Your task to perform on an android device: change notifications settings Image 0: 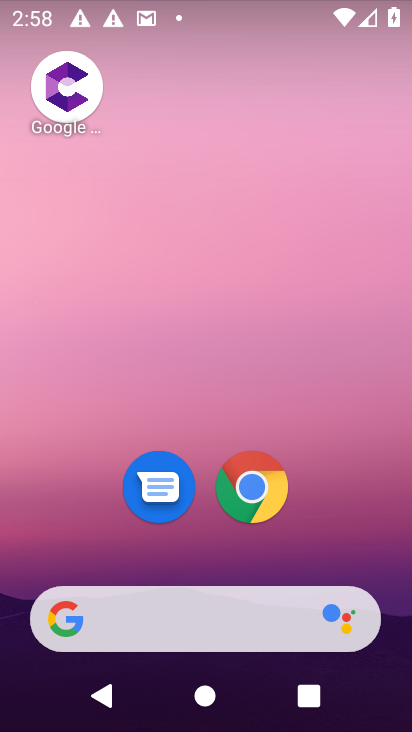
Step 0: drag from (121, 532) to (123, 55)
Your task to perform on an android device: change notifications settings Image 1: 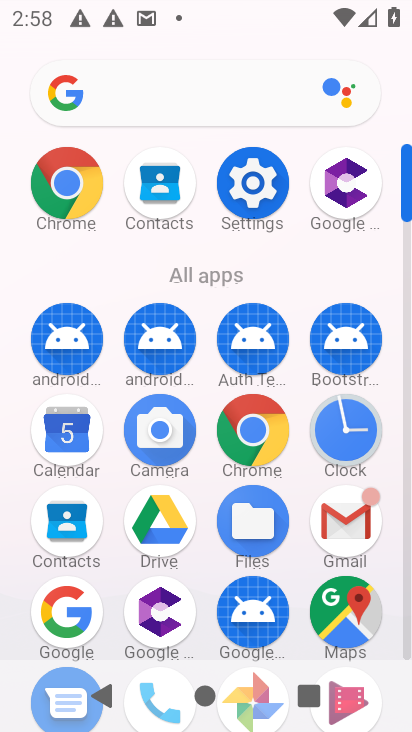
Step 1: click (244, 188)
Your task to perform on an android device: change notifications settings Image 2: 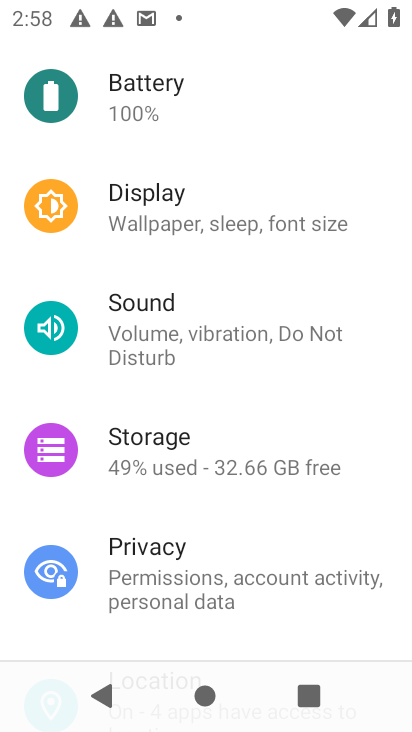
Step 2: drag from (182, 143) to (187, 637)
Your task to perform on an android device: change notifications settings Image 3: 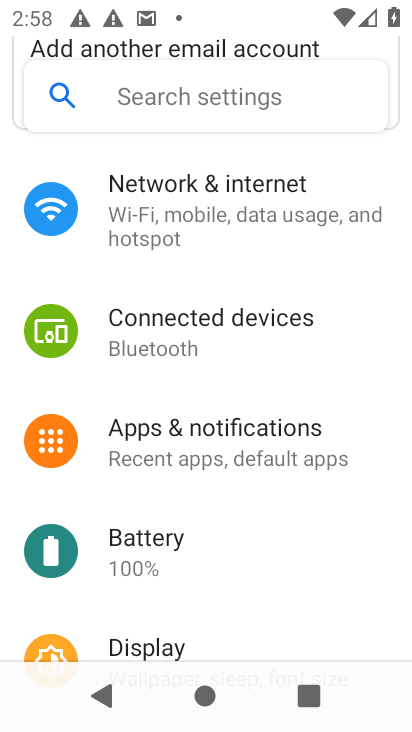
Step 3: click (191, 441)
Your task to perform on an android device: change notifications settings Image 4: 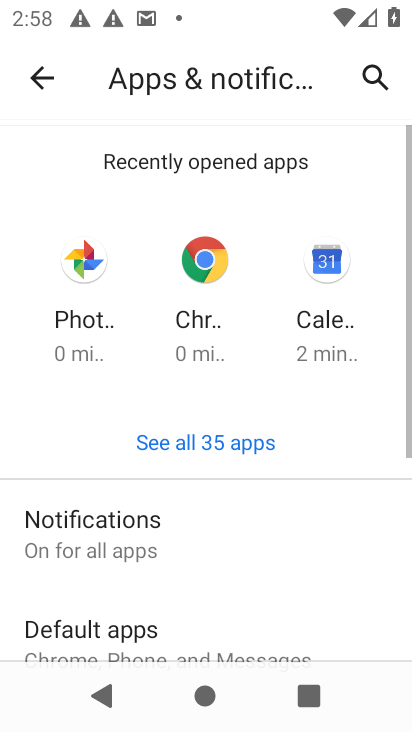
Step 4: click (128, 512)
Your task to perform on an android device: change notifications settings Image 5: 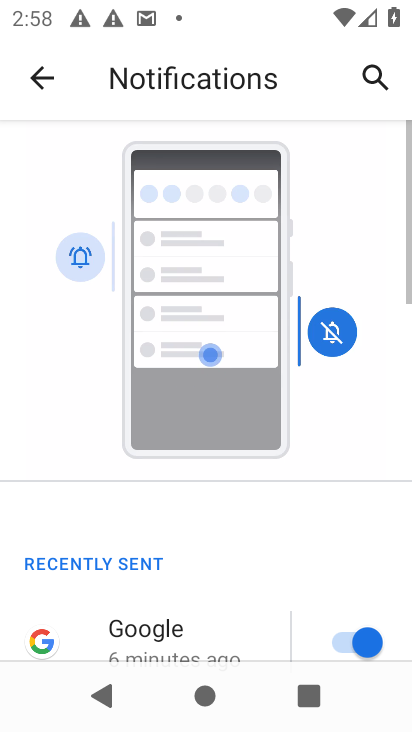
Step 5: drag from (169, 596) to (242, 98)
Your task to perform on an android device: change notifications settings Image 6: 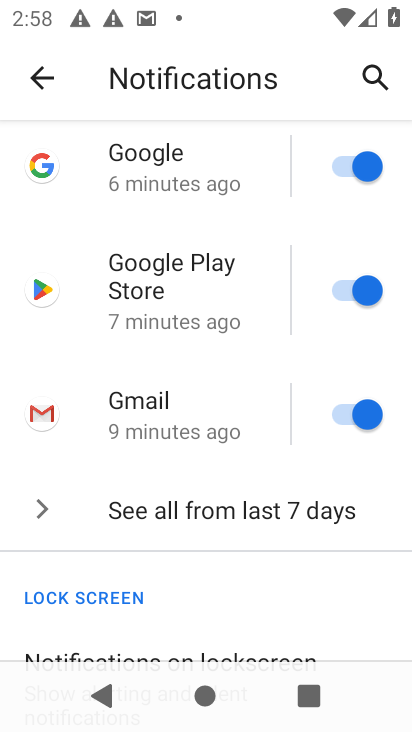
Step 6: drag from (195, 592) to (218, 237)
Your task to perform on an android device: change notifications settings Image 7: 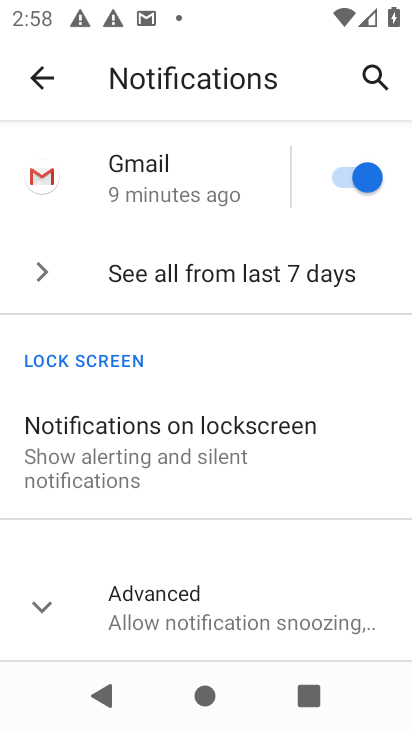
Step 7: drag from (172, 266) to (195, 513)
Your task to perform on an android device: change notifications settings Image 8: 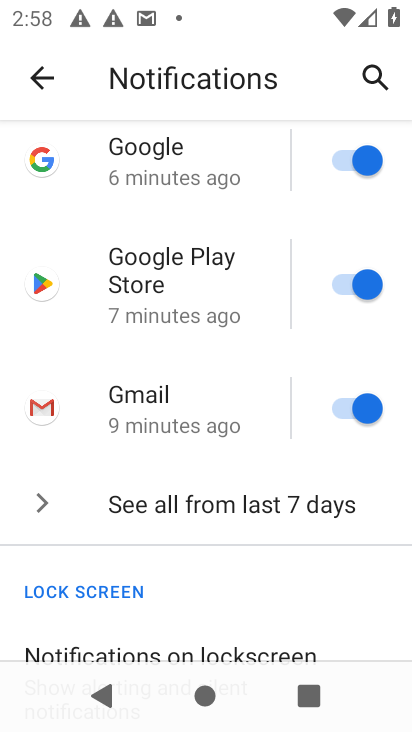
Step 8: click (193, 503)
Your task to perform on an android device: change notifications settings Image 9: 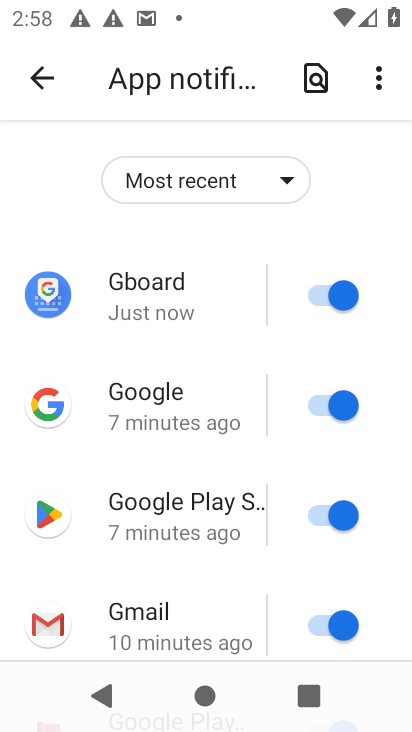
Step 9: click (317, 284)
Your task to perform on an android device: change notifications settings Image 10: 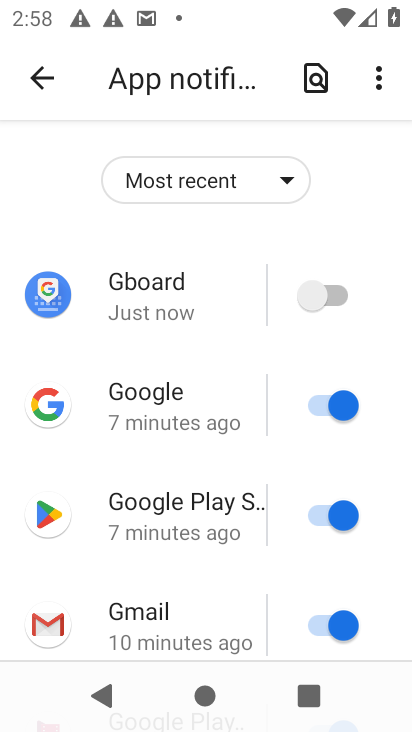
Step 10: click (337, 405)
Your task to perform on an android device: change notifications settings Image 11: 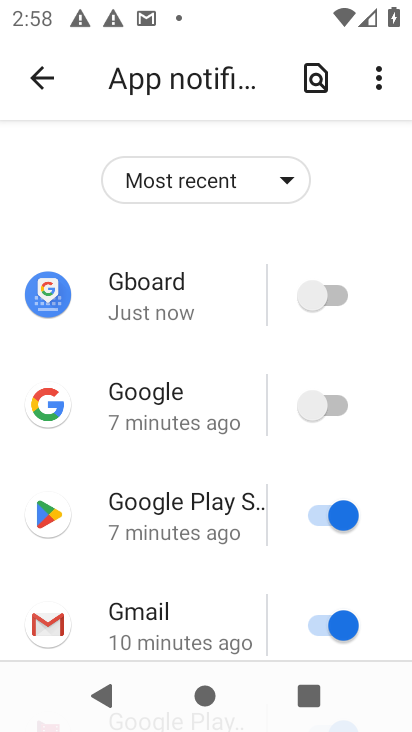
Step 11: click (326, 509)
Your task to perform on an android device: change notifications settings Image 12: 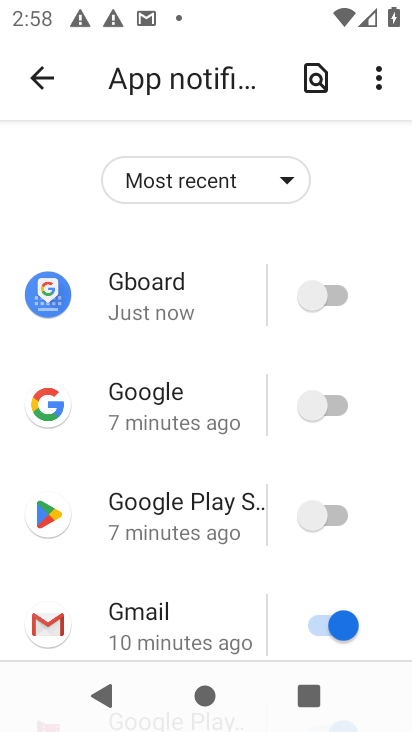
Step 12: drag from (184, 601) to (202, 247)
Your task to perform on an android device: change notifications settings Image 13: 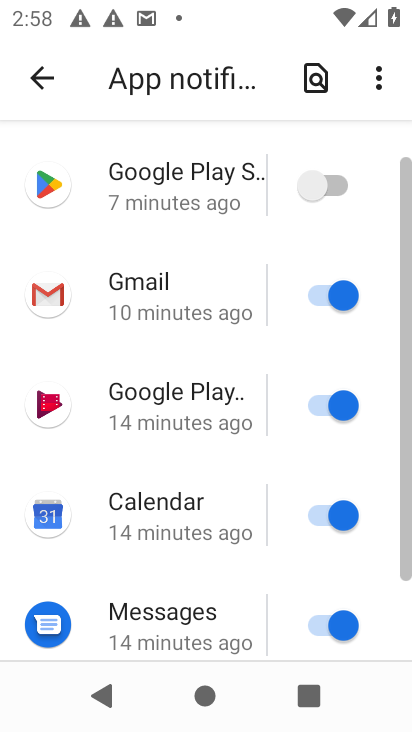
Step 13: click (319, 274)
Your task to perform on an android device: change notifications settings Image 14: 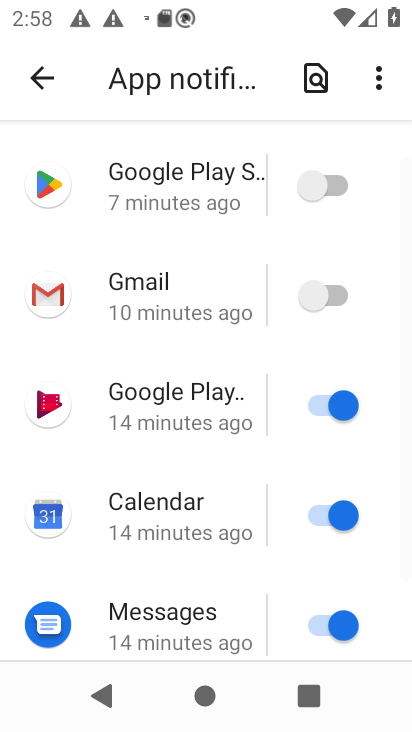
Step 14: click (330, 400)
Your task to perform on an android device: change notifications settings Image 15: 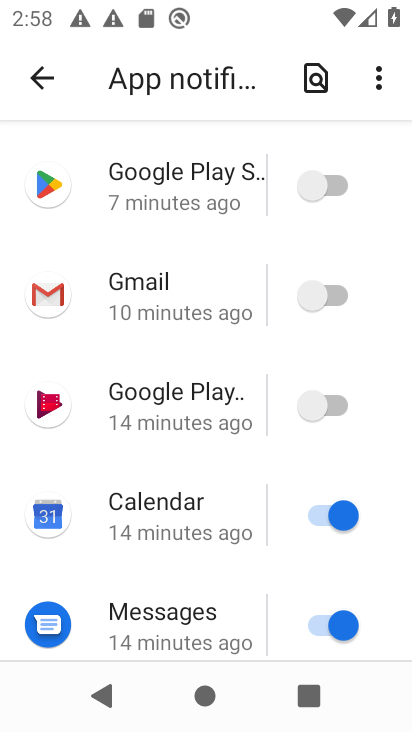
Step 15: click (325, 521)
Your task to perform on an android device: change notifications settings Image 16: 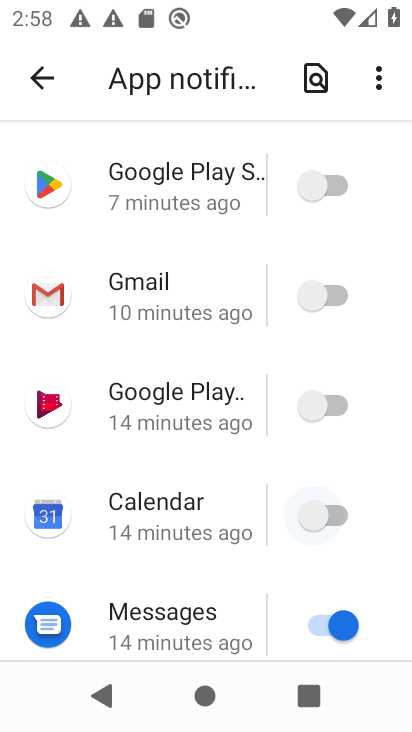
Step 16: click (327, 613)
Your task to perform on an android device: change notifications settings Image 17: 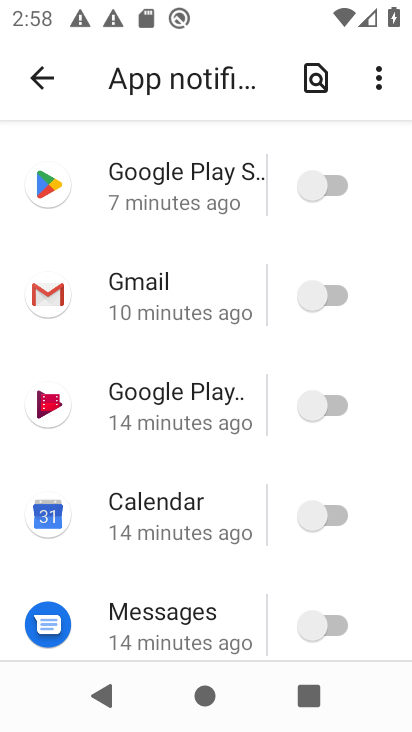
Step 17: drag from (248, 578) to (271, 112)
Your task to perform on an android device: change notifications settings Image 18: 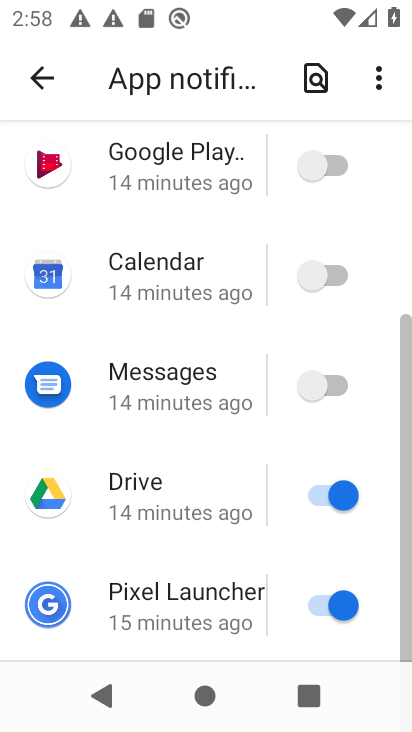
Step 18: click (328, 487)
Your task to perform on an android device: change notifications settings Image 19: 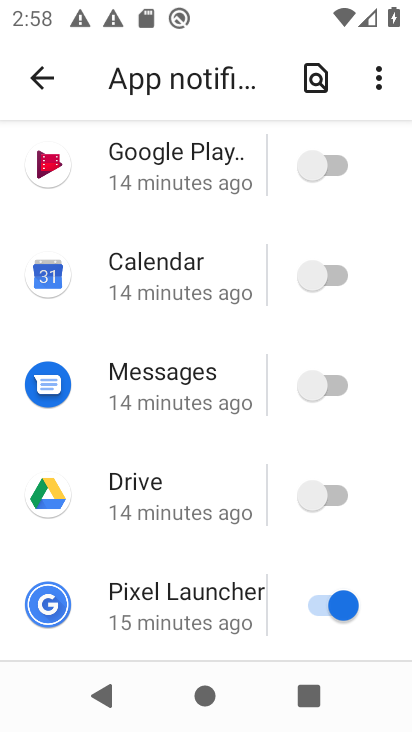
Step 19: click (338, 609)
Your task to perform on an android device: change notifications settings Image 20: 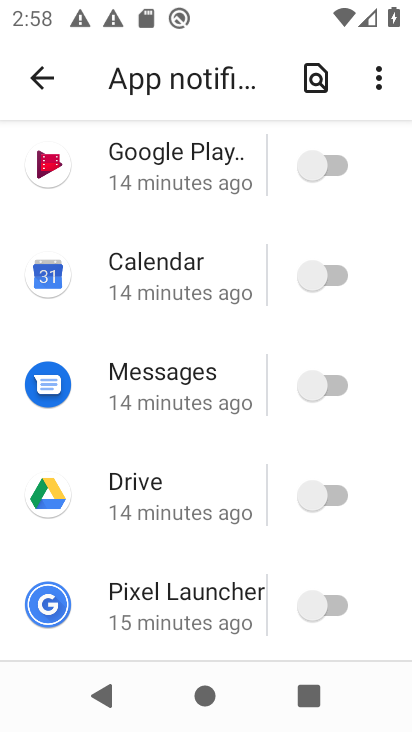
Step 20: task complete